Your task to perform on an android device: Go to Google Image 0: 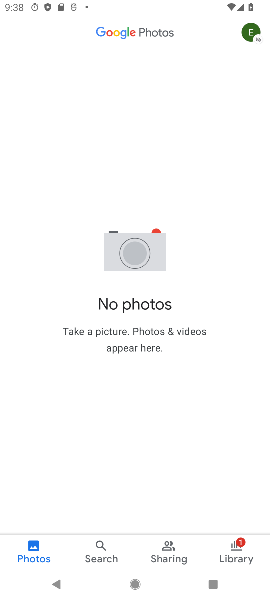
Step 0: press home button
Your task to perform on an android device: Go to Google Image 1: 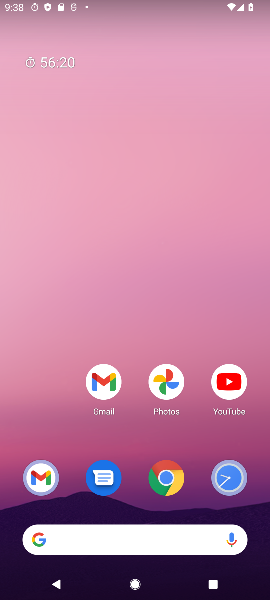
Step 1: drag from (113, 440) to (129, 65)
Your task to perform on an android device: Go to Google Image 2: 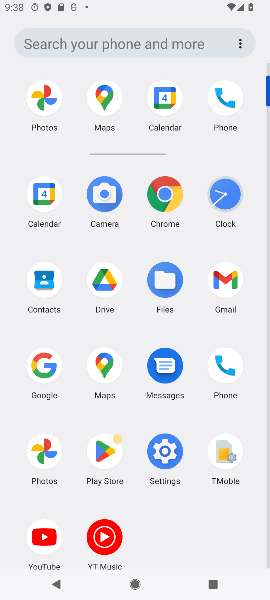
Step 2: click (46, 378)
Your task to perform on an android device: Go to Google Image 3: 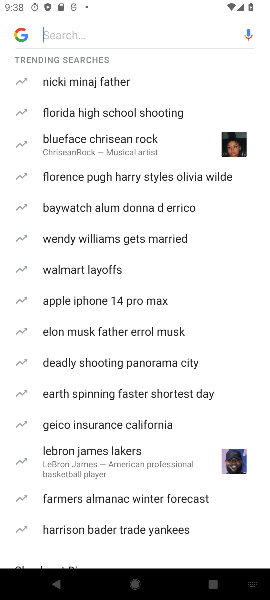
Step 3: task complete